Your task to perform on an android device: Open display settings Image 0: 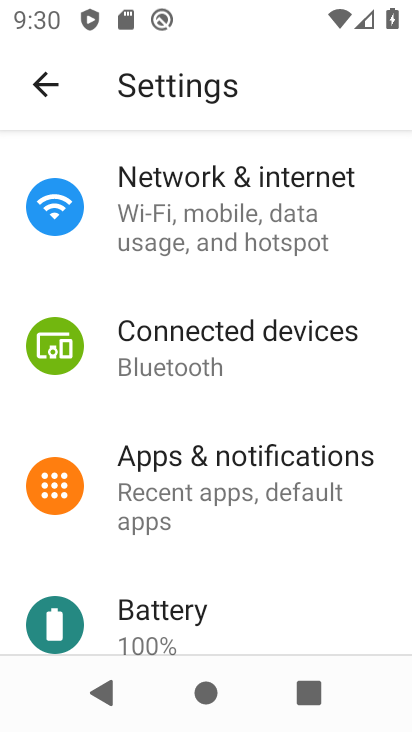
Step 0: drag from (229, 522) to (271, 383)
Your task to perform on an android device: Open display settings Image 1: 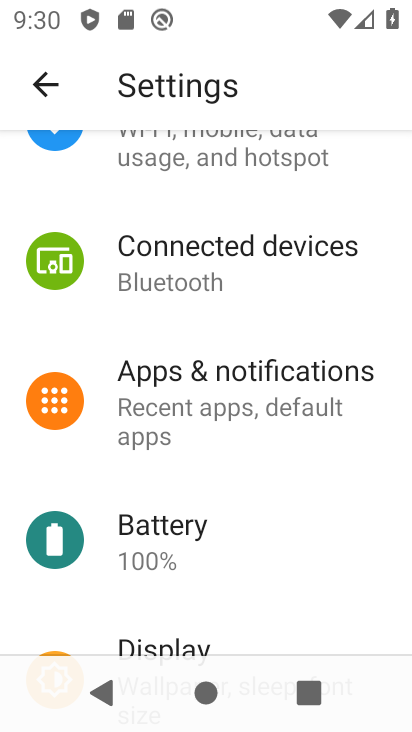
Step 1: drag from (238, 530) to (291, 387)
Your task to perform on an android device: Open display settings Image 2: 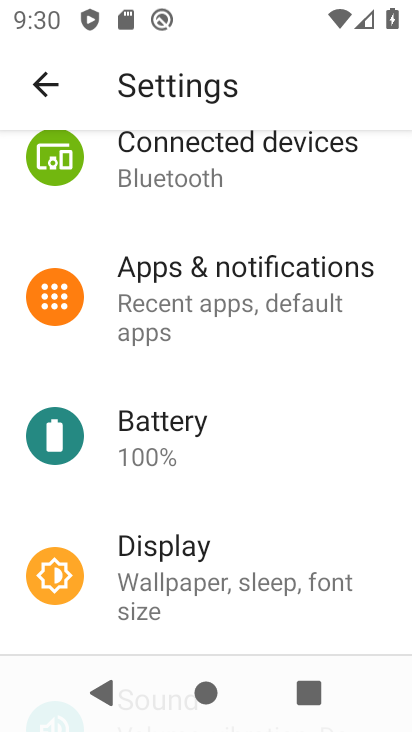
Step 2: drag from (253, 519) to (303, 422)
Your task to perform on an android device: Open display settings Image 3: 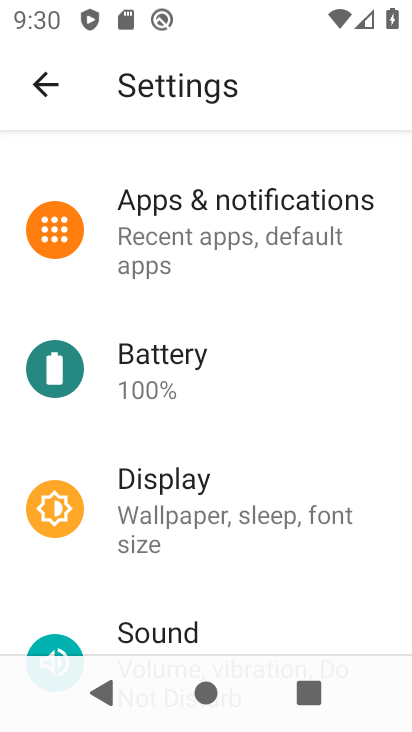
Step 3: click (186, 481)
Your task to perform on an android device: Open display settings Image 4: 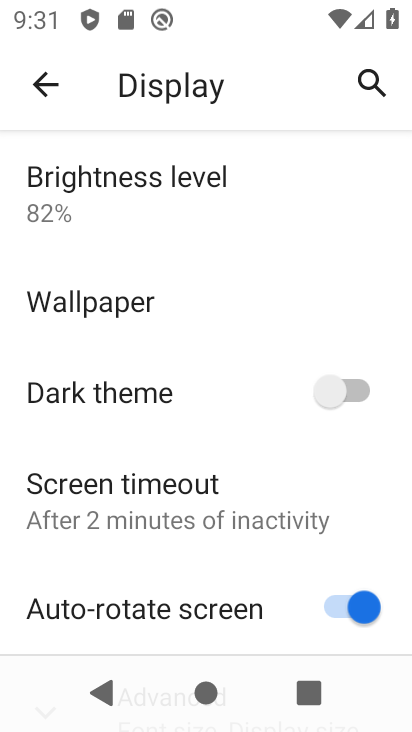
Step 4: task complete